Your task to perform on an android device: Open internet settings Image 0: 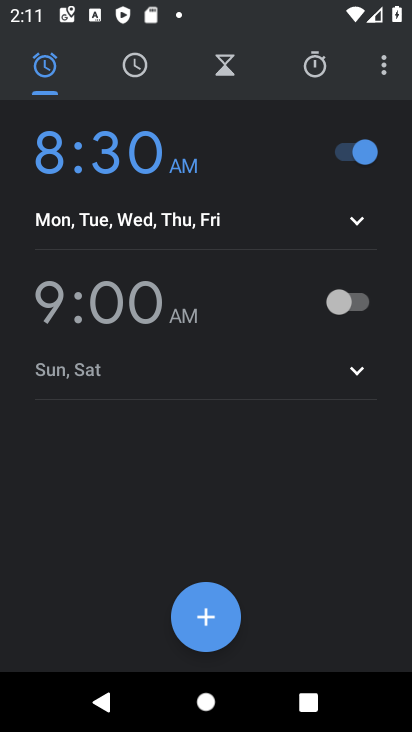
Step 0: press home button
Your task to perform on an android device: Open internet settings Image 1: 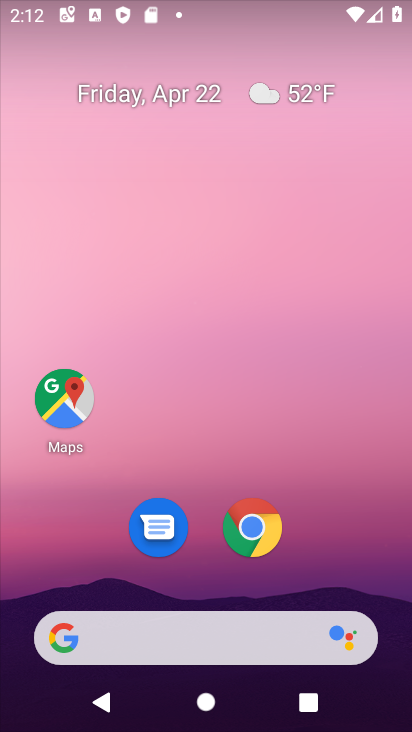
Step 1: drag from (240, 165) to (177, 0)
Your task to perform on an android device: Open internet settings Image 2: 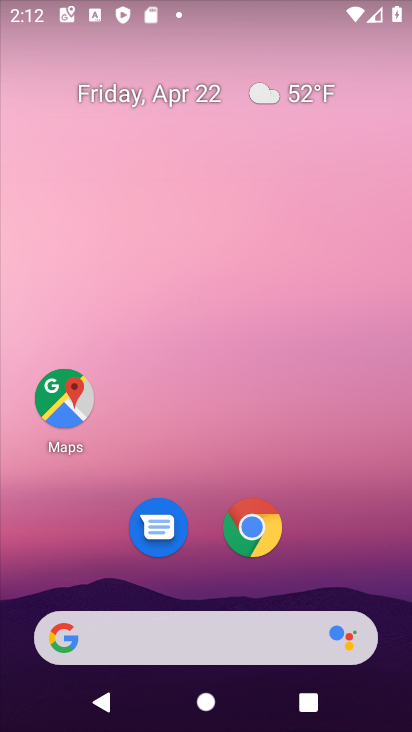
Step 2: drag from (339, 499) to (247, 82)
Your task to perform on an android device: Open internet settings Image 3: 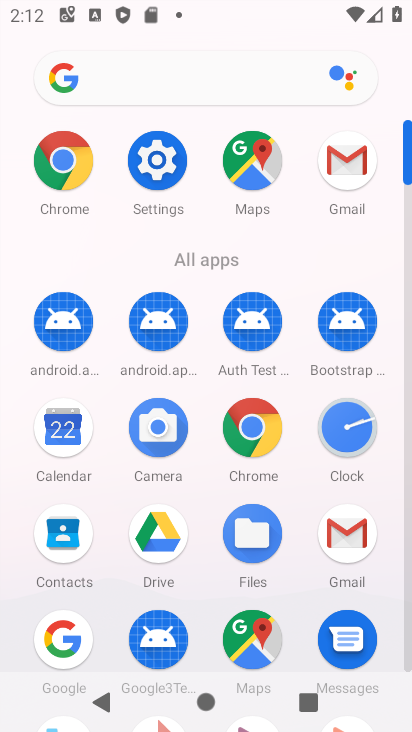
Step 3: click (164, 154)
Your task to perform on an android device: Open internet settings Image 4: 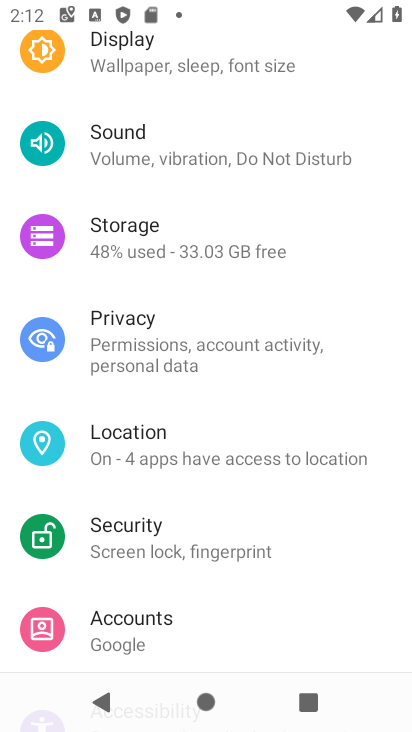
Step 4: drag from (183, 118) to (296, 474)
Your task to perform on an android device: Open internet settings Image 5: 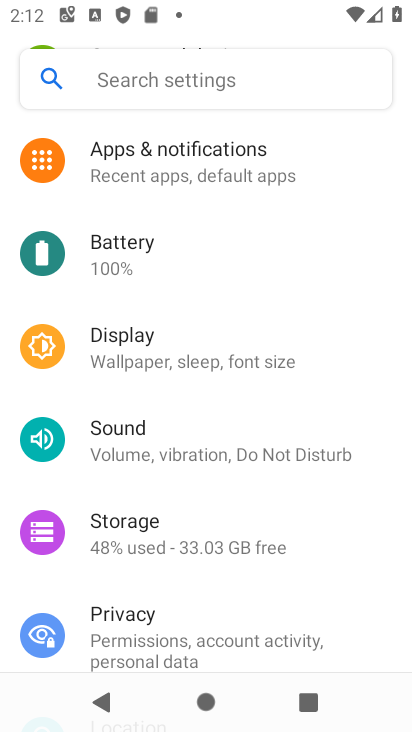
Step 5: drag from (220, 218) to (301, 566)
Your task to perform on an android device: Open internet settings Image 6: 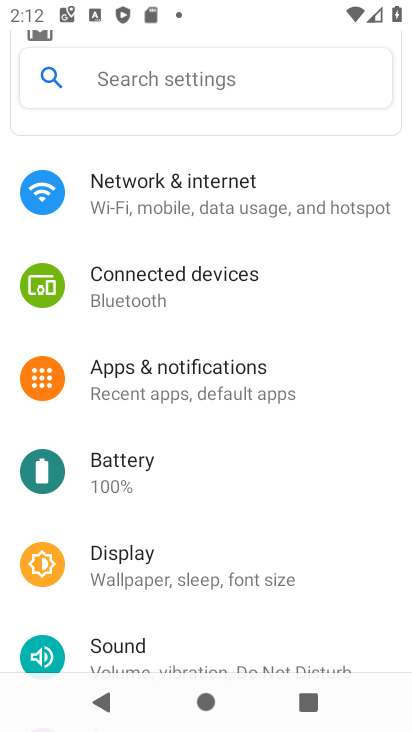
Step 6: click (140, 185)
Your task to perform on an android device: Open internet settings Image 7: 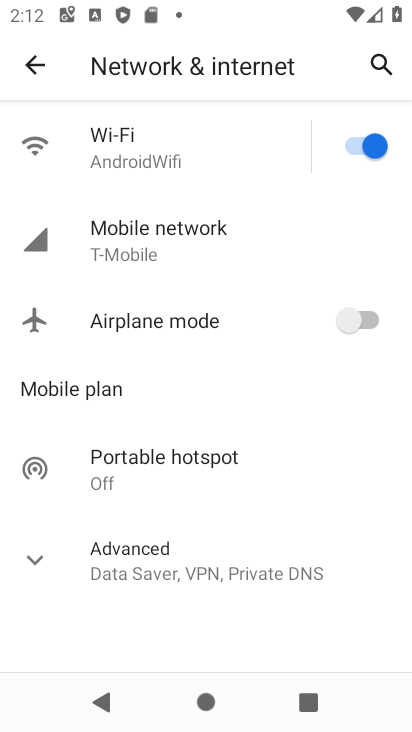
Step 7: click (173, 244)
Your task to perform on an android device: Open internet settings Image 8: 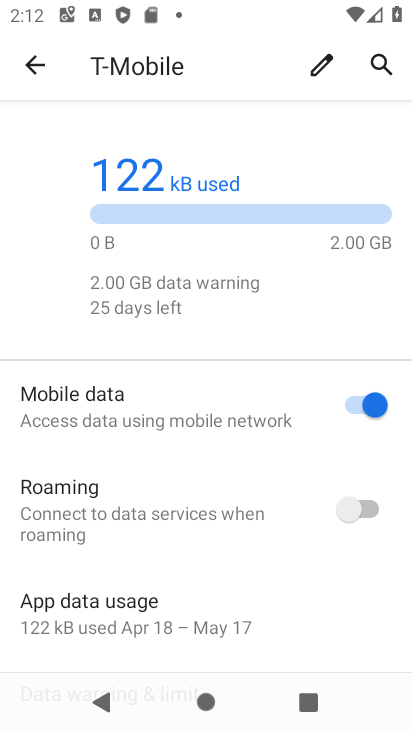
Step 8: task complete